Your task to perform on an android device: add a label to a message in the gmail app Image 0: 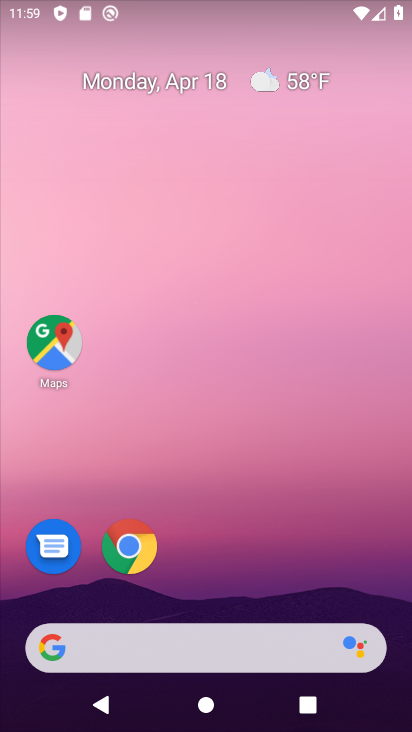
Step 0: drag from (219, 610) to (257, 38)
Your task to perform on an android device: add a label to a message in the gmail app Image 1: 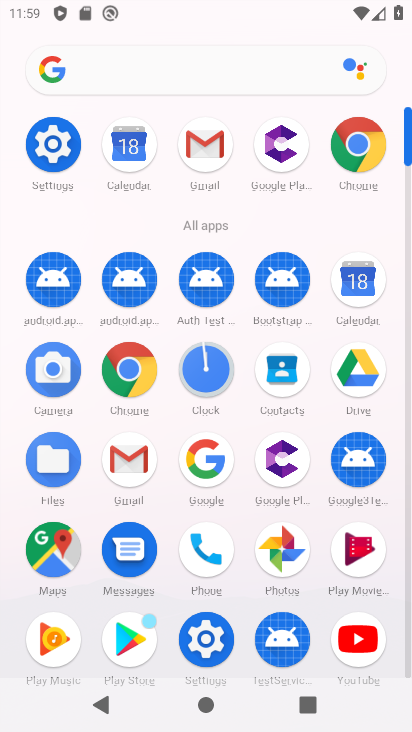
Step 1: click (136, 463)
Your task to perform on an android device: add a label to a message in the gmail app Image 2: 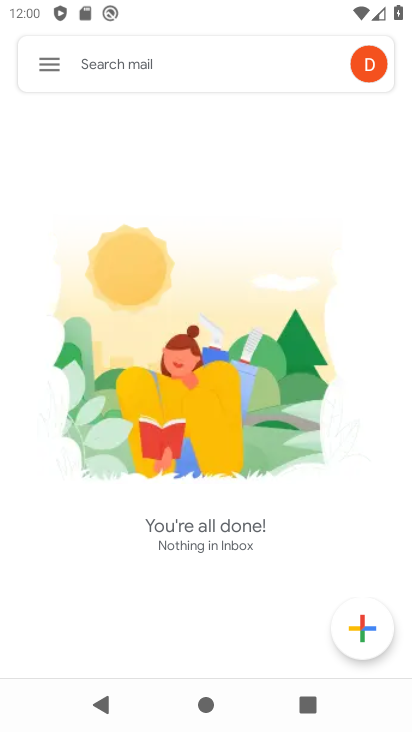
Step 2: task complete